Your task to perform on an android device: Go to battery settings Image 0: 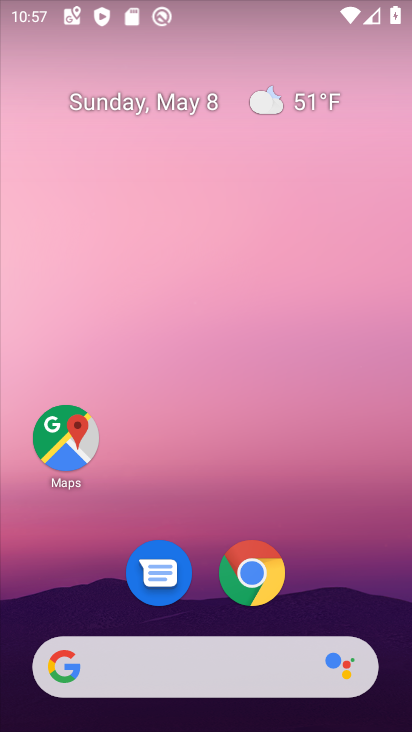
Step 0: drag from (167, 642) to (207, 223)
Your task to perform on an android device: Go to battery settings Image 1: 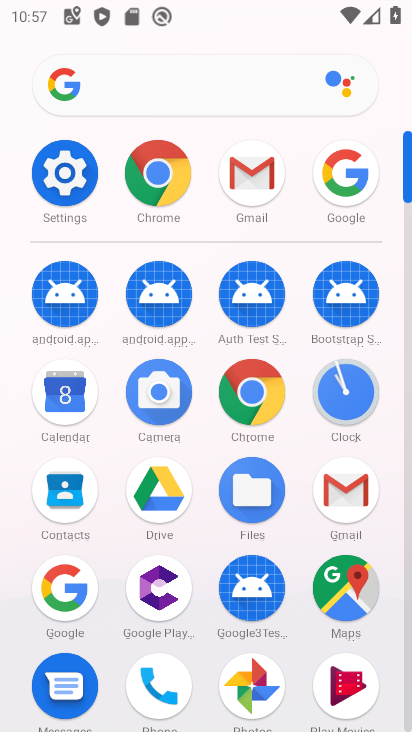
Step 1: click (52, 165)
Your task to perform on an android device: Go to battery settings Image 2: 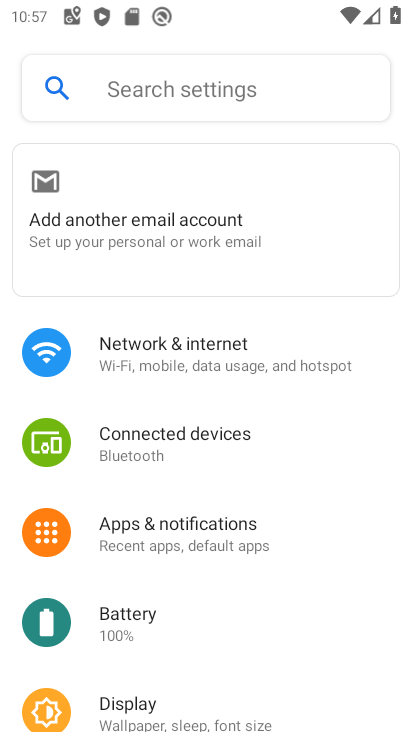
Step 2: click (120, 618)
Your task to perform on an android device: Go to battery settings Image 3: 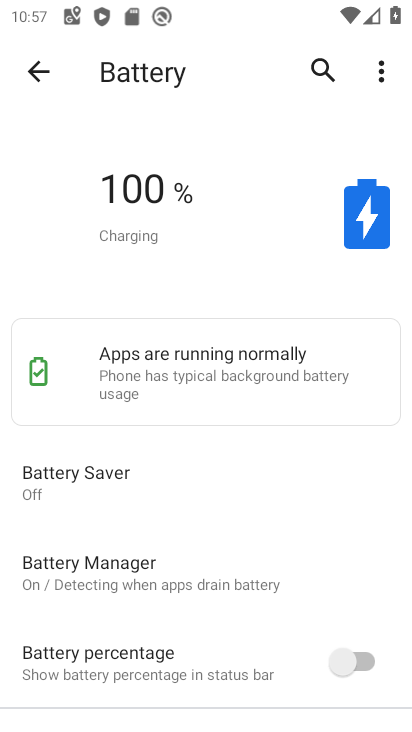
Step 3: click (382, 69)
Your task to perform on an android device: Go to battery settings Image 4: 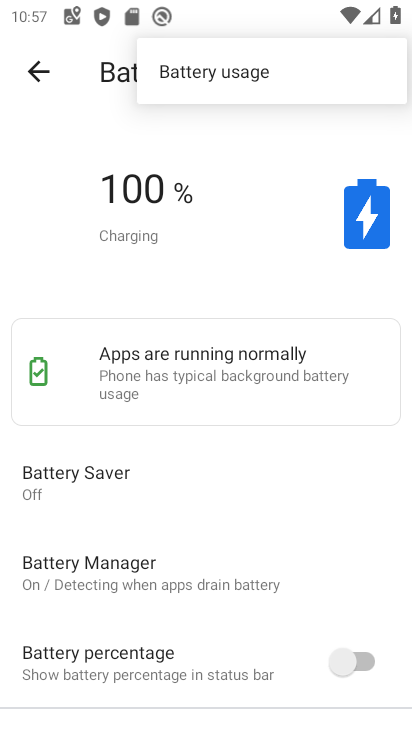
Step 4: click (234, 77)
Your task to perform on an android device: Go to battery settings Image 5: 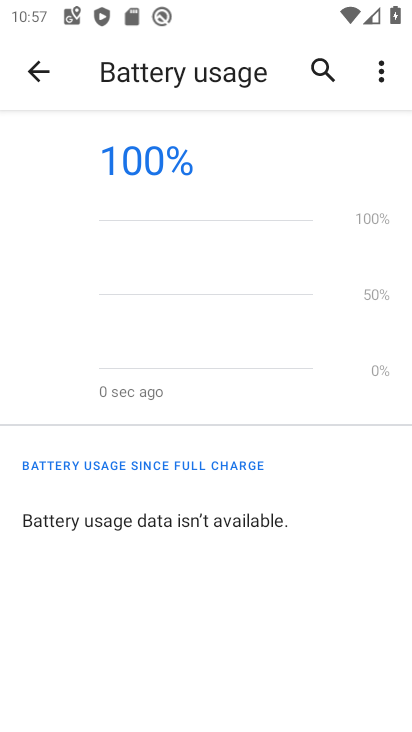
Step 5: task complete